Your task to perform on an android device: change the clock style Image 0: 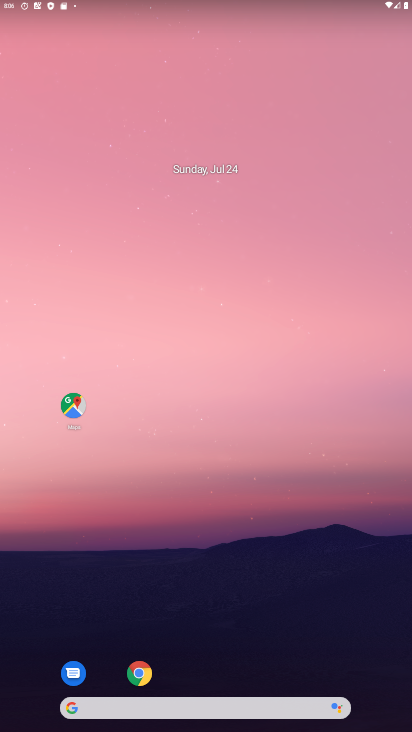
Step 0: drag from (189, 651) to (311, 93)
Your task to perform on an android device: change the clock style Image 1: 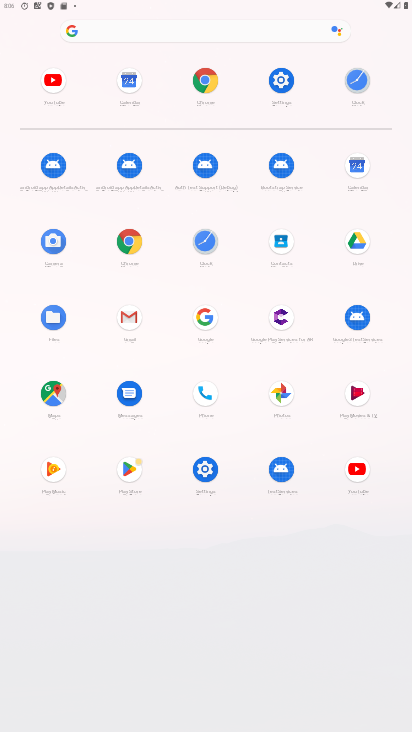
Step 1: drag from (232, 652) to (197, 419)
Your task to perform on an android device: change the clock style Image 2: 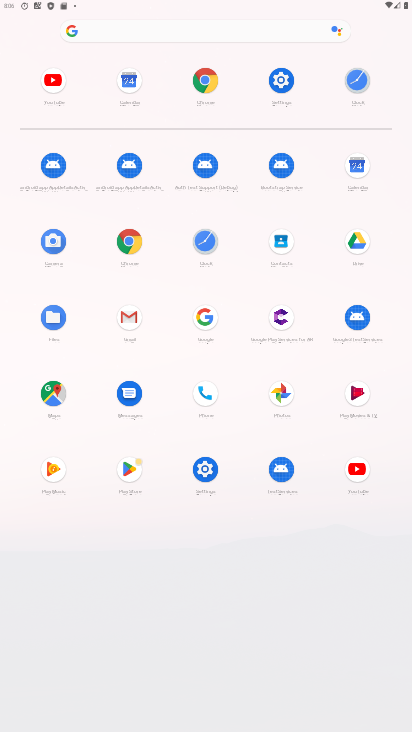
Step 2: click (204, 249)
Your task to perform on an android device: change the clock style Image 3: 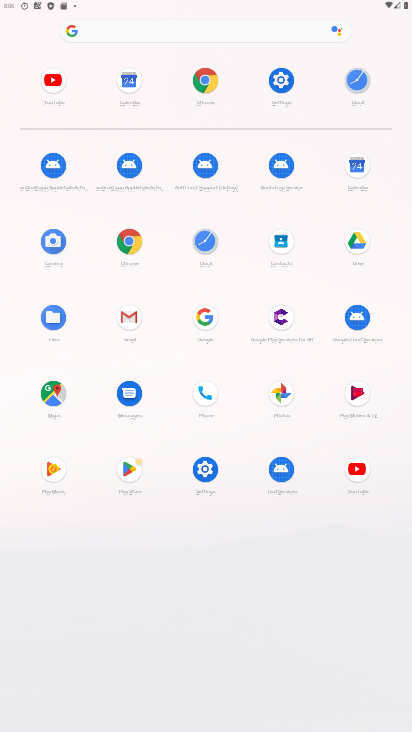
Step 3: click (204, 249)
Your task to perform on an android device: change the clock style Image 4: 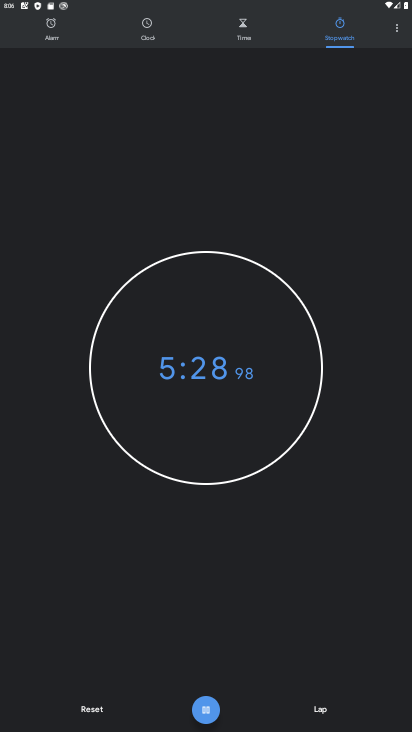
Step 4: drag from (196, 508) to (206, 384)
Your task to perform on an android device: change the clock style Image 5: 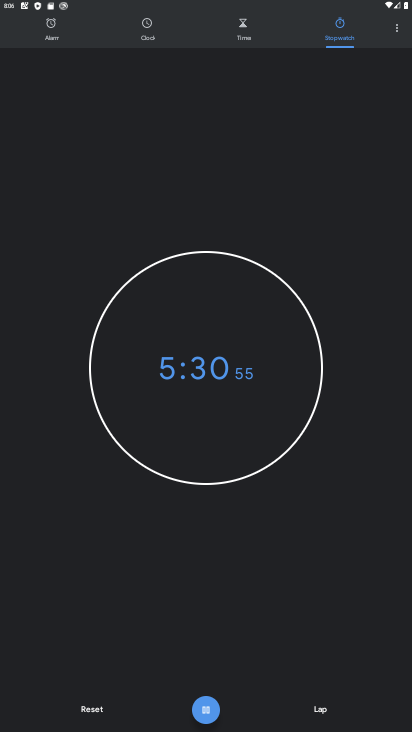
Step 5: drag from (197, 525) to (228, 304)
Your task to perform on an android device: change the clock style Image 6: 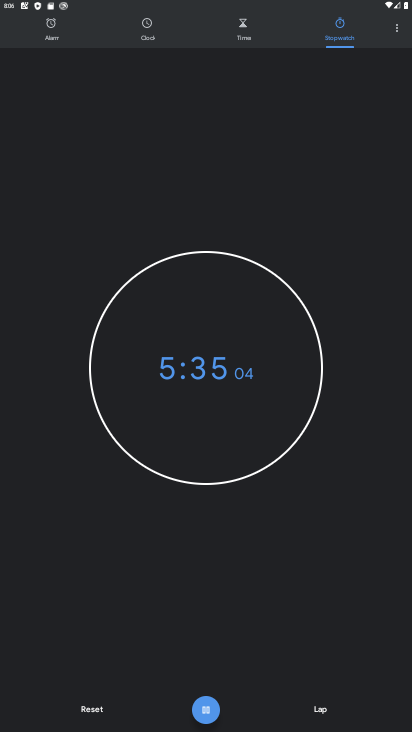
Step 6: drag from (193, 252) to (257, 29)
Your task to perform on an android device: change the clock style Image 7: 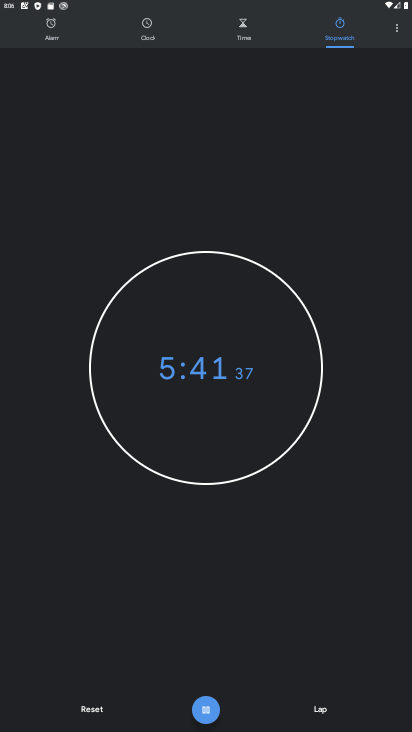
Step 7: click (152, 21)
Your task to perform on an android device: change the clock style Image 8: 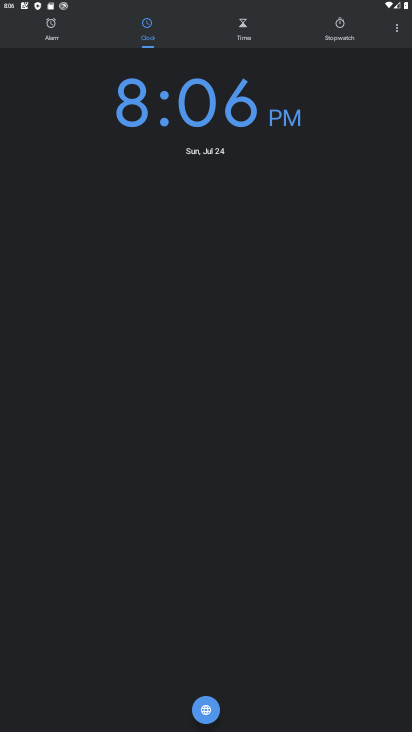
Step 8: drag from (205, 427) to (258, 294)
Your task to perform on an android device: change the clock style Image 9: 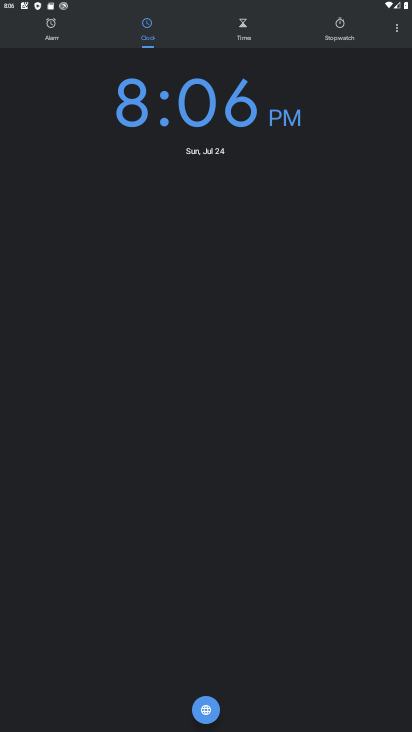
Step 9: drag from (228, 585) to (264, 431)
Your task to perform on an android device: change the clock style Image 10: 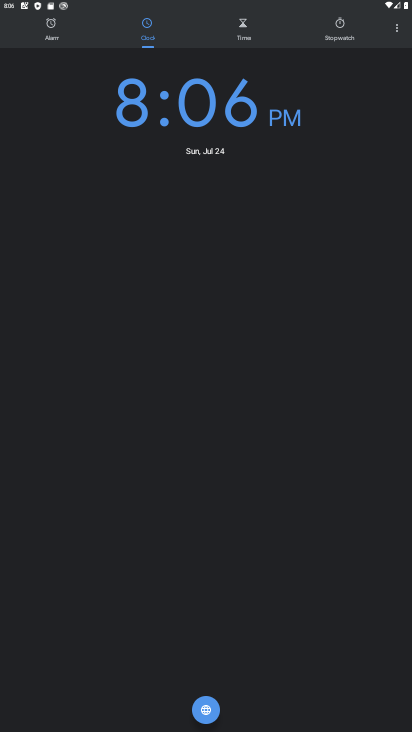
Step 10: drag from (248, 528) to (273, 319)
Your task to perform on an android device: change the clock style Image 11: 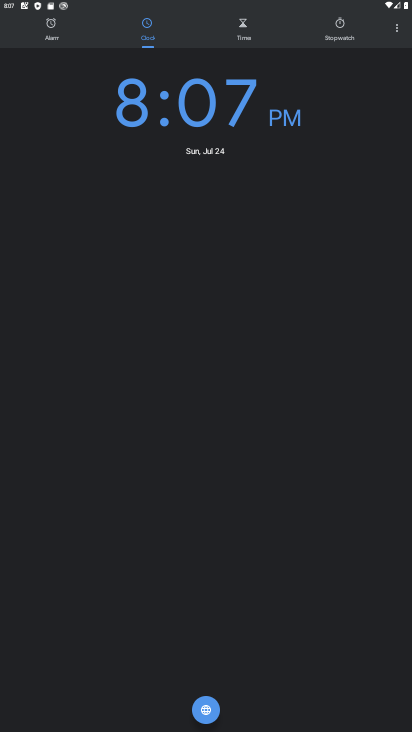
Step 11: click (398, 22)
Your task to perform on an android device: change the clock style Image 12: 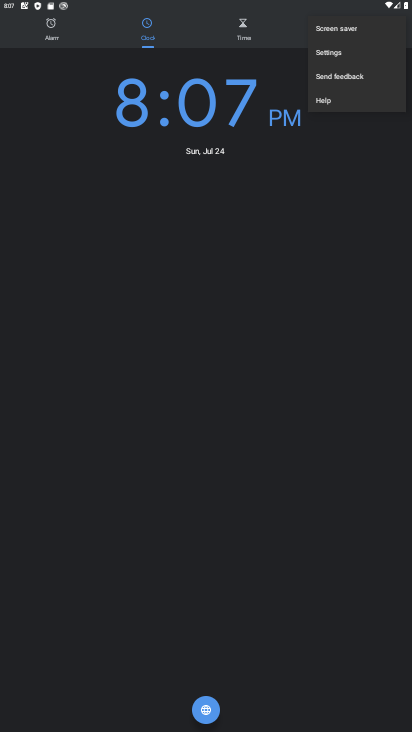
Step 12: click (357, 51)
Your task to perform on an android device: change the clock style Image 13: 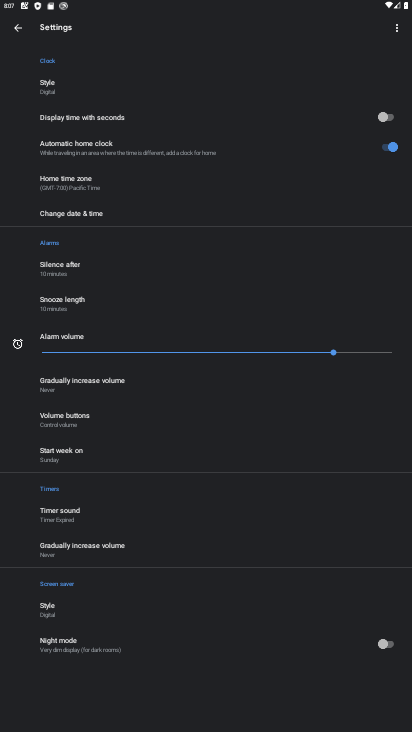
Step 13: click (82, 79)
Your task to perform on an android device: change the clock style Image 14: 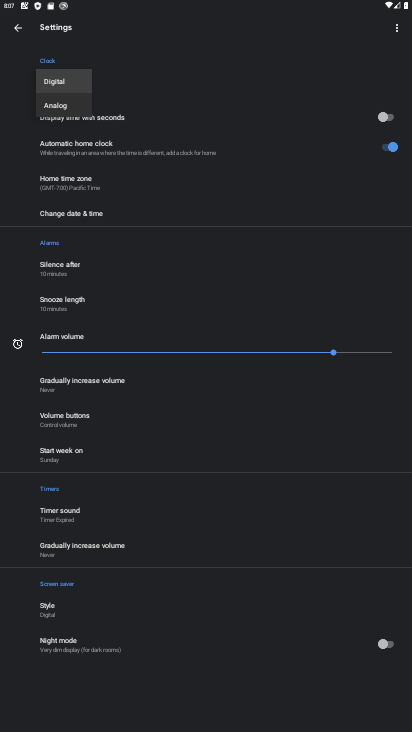
Step 14: click (70, 105)
Your task to perform on an android device: change the clock style Image 15: 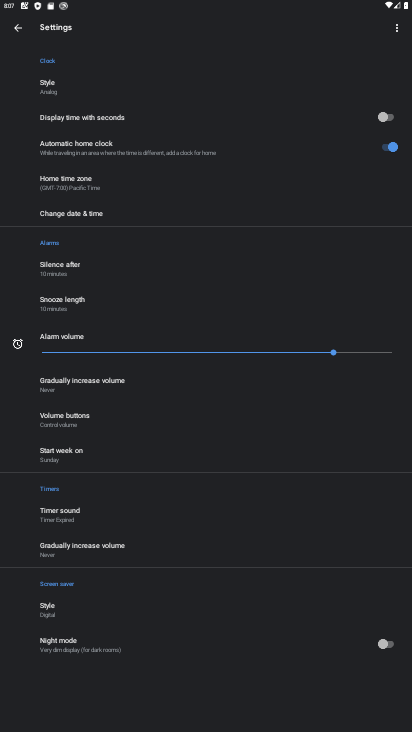
Step 15: task complete